Your task to perform on an android device: toggle javascript in the chrome app Image 0: 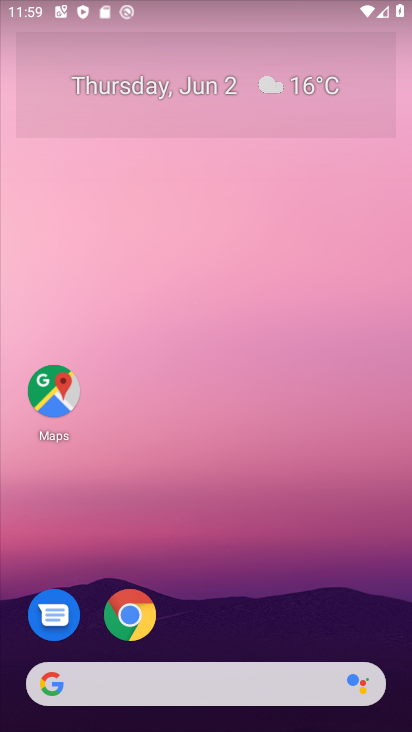
Step 0: drag from (225, 619) to (192, 290)
Your task to perform on an android device: toggle javascript in the chrome app Image 1: 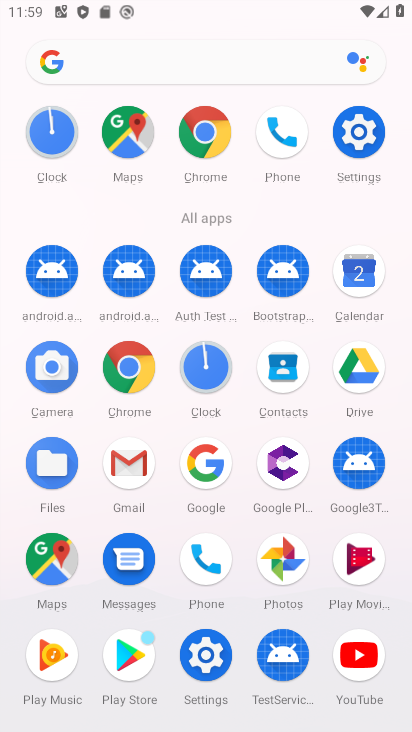
Step 1: click (201, 142)
Your task to perform on an android device: toggle javascript in the chrome app Image 2: 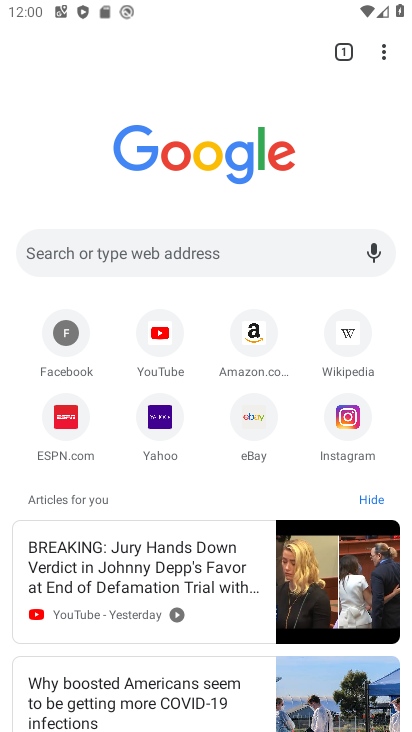
Step 2: click (395, 53)
Your task to perform on an android device: toggle javascript in the chrome app Image 3: 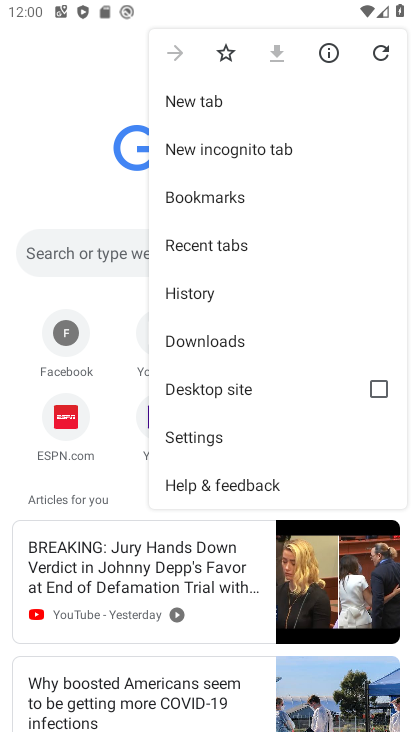
Step 3: click (228, 426)
Your task to perform on an android device: toggle javascript in the chrome app Image 4: 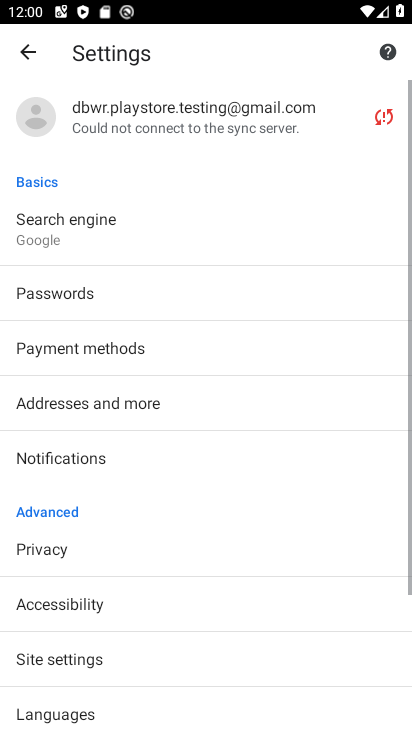
Step 4: drag from (198, 582) to (215, 182)
Your task to perform on an android device: toggle javascript in the chrome app Image 5: 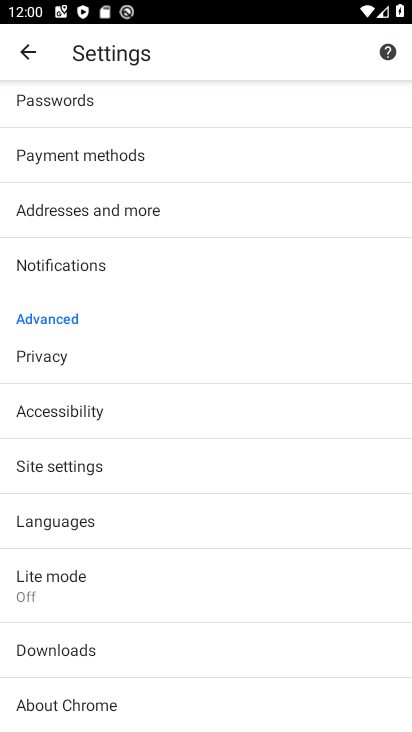
Step 5: click (96, 446)
Your task to perform on an android device: toggle javascript in the chrome app Image 6: 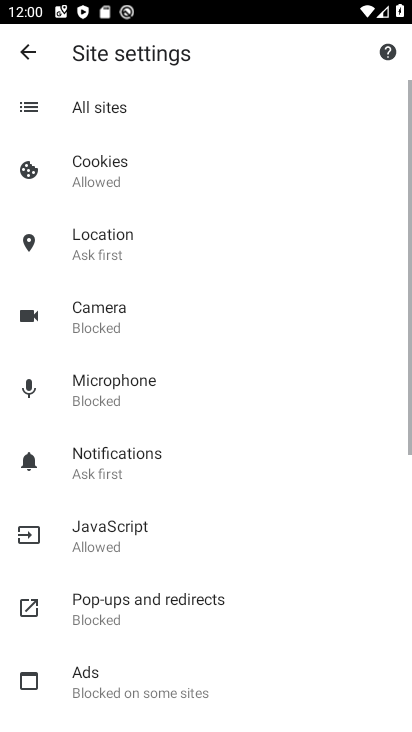
Step 6: click (128, 531)
Your task to perform on an android device: toggle javascript in the chrome app Image 7: 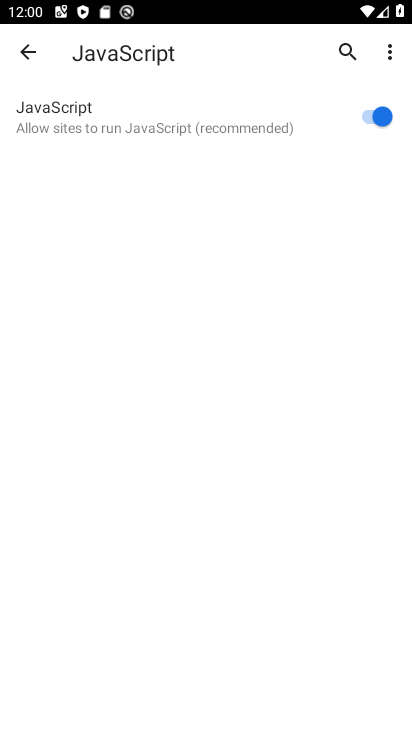
Step 7: click (374, 95)
Your task to perform on an android device: toggle javascript in the chrome app Image 8: 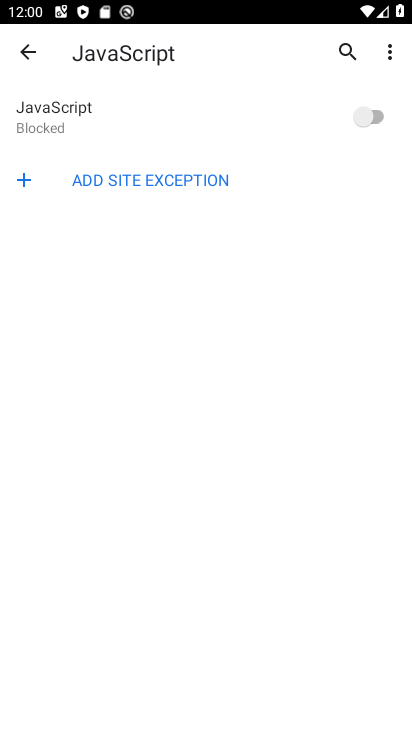
Step 8: task complete